Your task to perform on an android device: Go to Google Image 0: 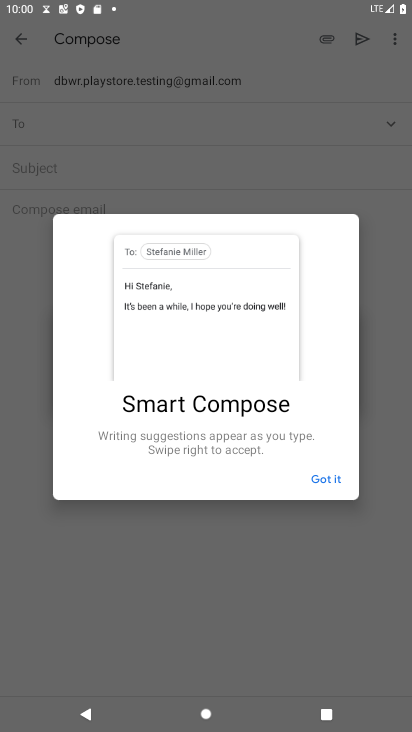
Step 0: press home button
Your task to perform on an android device: Go to Google Image 1: 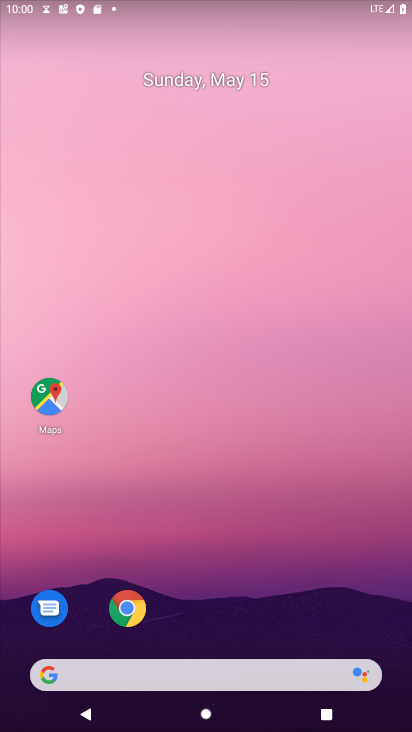
Step 1: drag from (247, 573) to (269, 30)
Your task to perform on an android device: Go to Google Image 2: 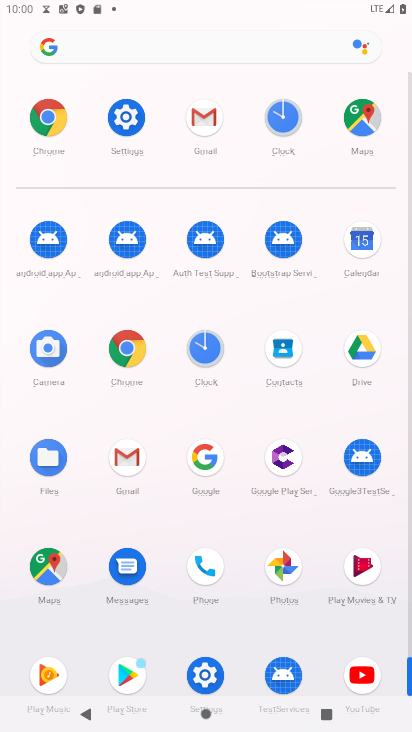
Step 2: click (205, 468)
Your task to perform on an android device: Go to Google Image 3: 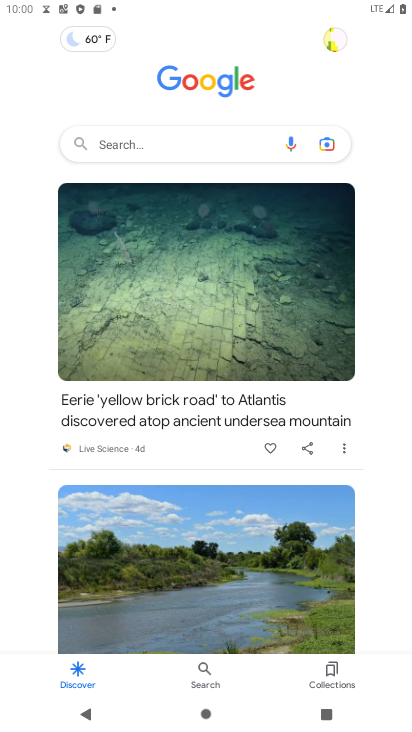
Step 3: task complete